Your task to perform on an android device: Open calendar and show me the first week of next month Image 0: 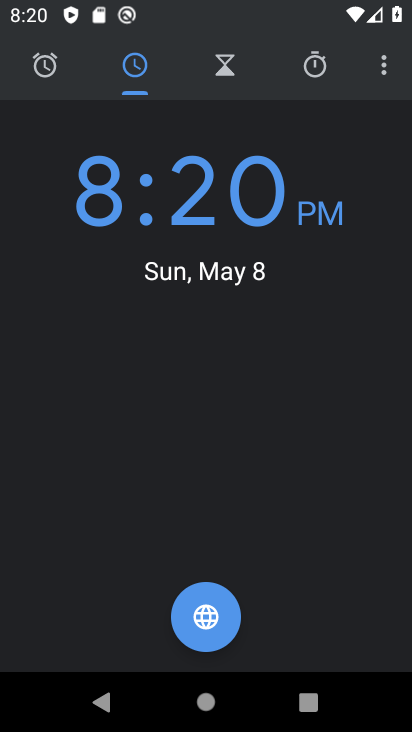
Step 0: press home button
Your task to perform on an android device: Open calendar and show me the first week of next month Image 1: 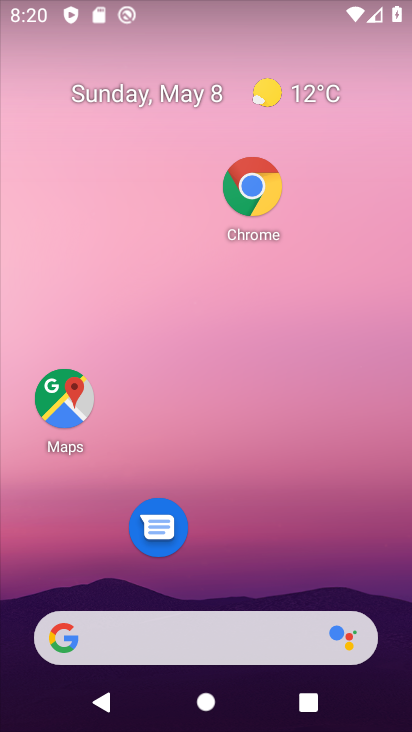
Step 1: drag from (315, 554) to (355, 204)
Your task to perform on an android device: Open calendar and show me the first week of next month Image 2: 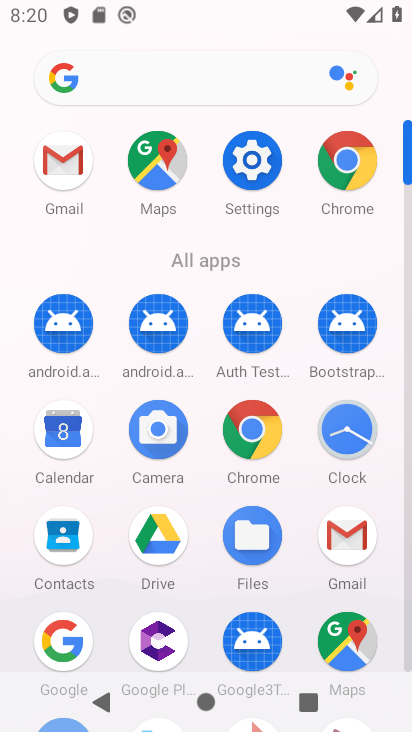
Step 2: click (60, 432)
Your task to perform on an android device: Open calendar and show me the first week of next month Image 3: 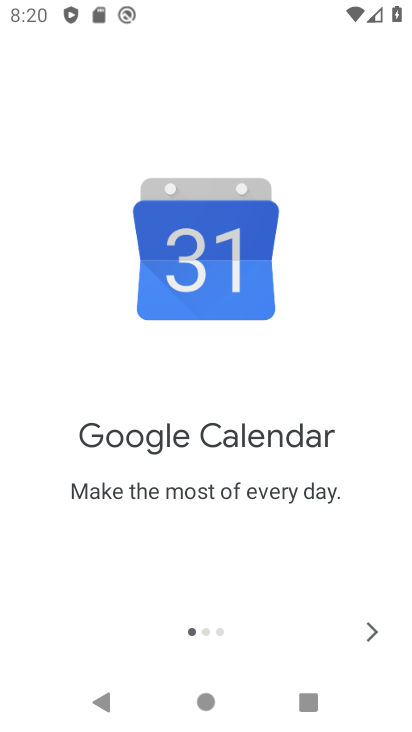
Step 3: click (352, 635)
Your task to perform on an android device: Open calendar and show me the first week of next month Image 4: 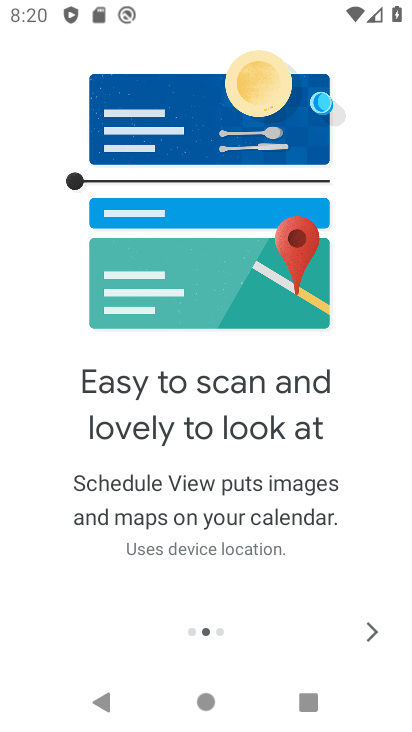
Step 4: click (359, 630)
Your task to perform on an android device: Open calendar and show me the first week of next month Image 5: 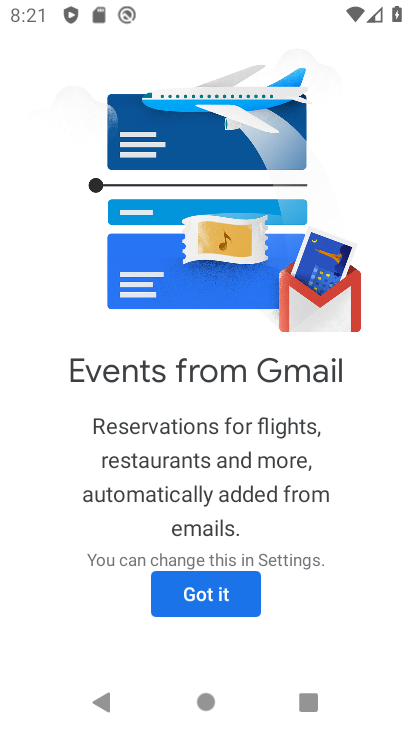
Step 5: click (232, 587)
Your task to perform on an android device: Open calendar and show me the first week of next month Image 6: 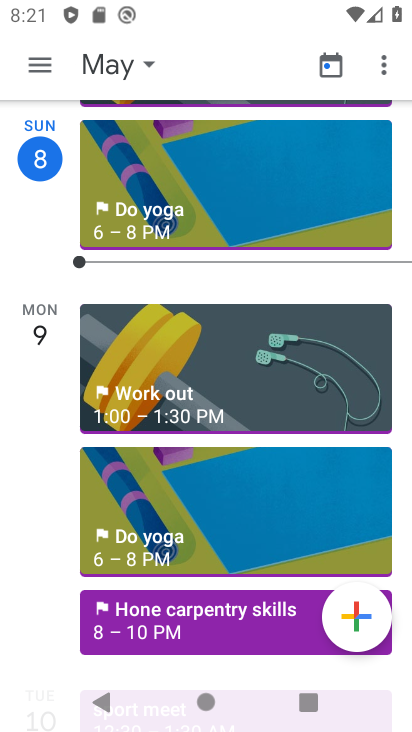
Step 6: click (27, 64)
Your task to perform on an android device: Open calendar and show me the first week of next month Image 7: 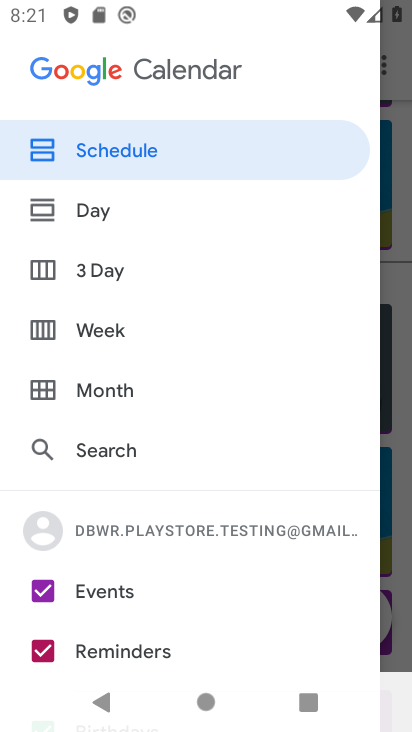
Step 7: click (137, 388)
Your task to perform on an android device: Open calendar and show me the first week of next month Image 8: 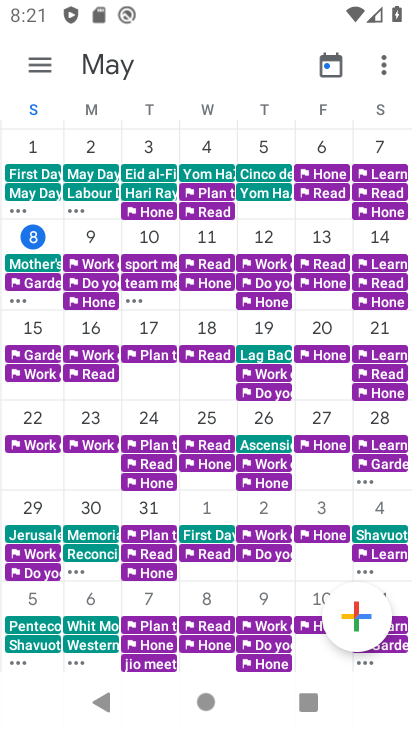
Step 8: task complete